Your task to perform on an android device: Open the stopwatch Image 0: 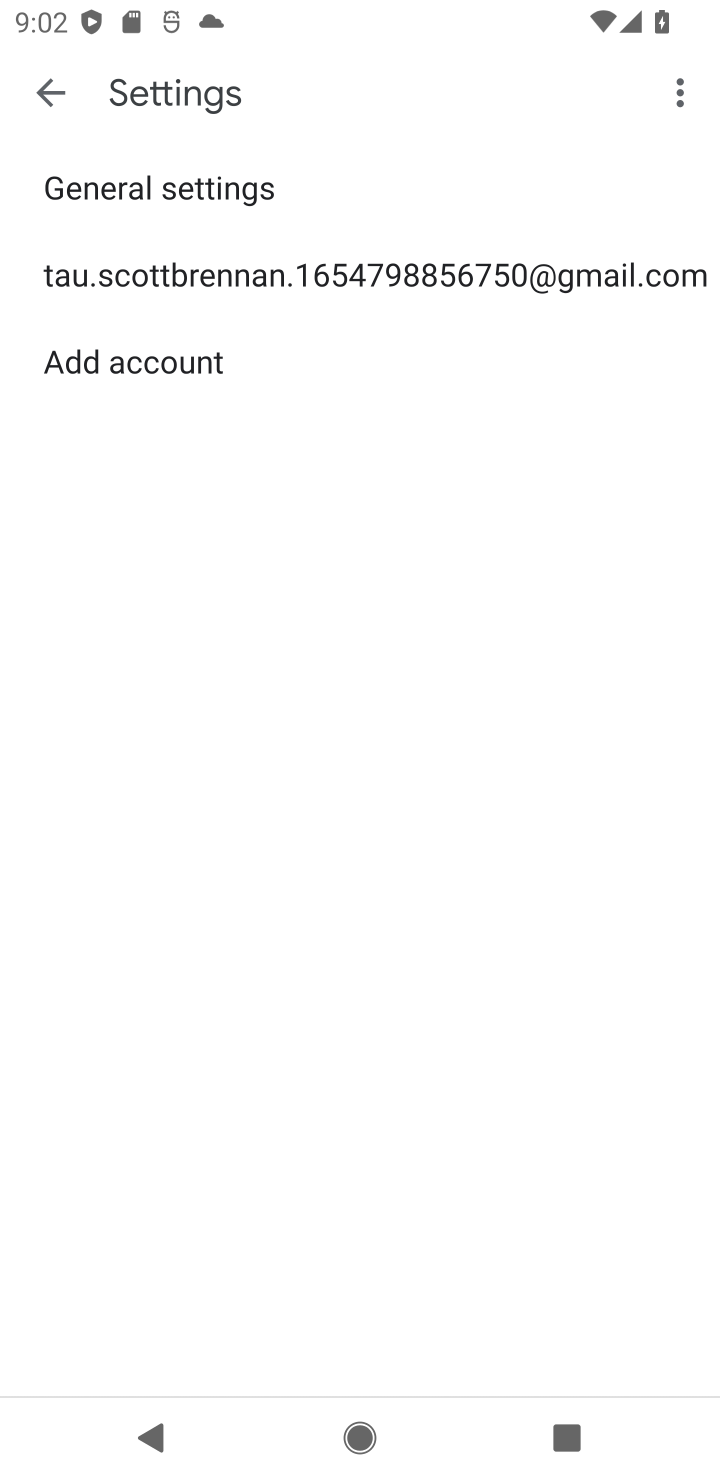
Step 0: press home button
Your task to perform on an android device: Open the stopwatch Image 1: 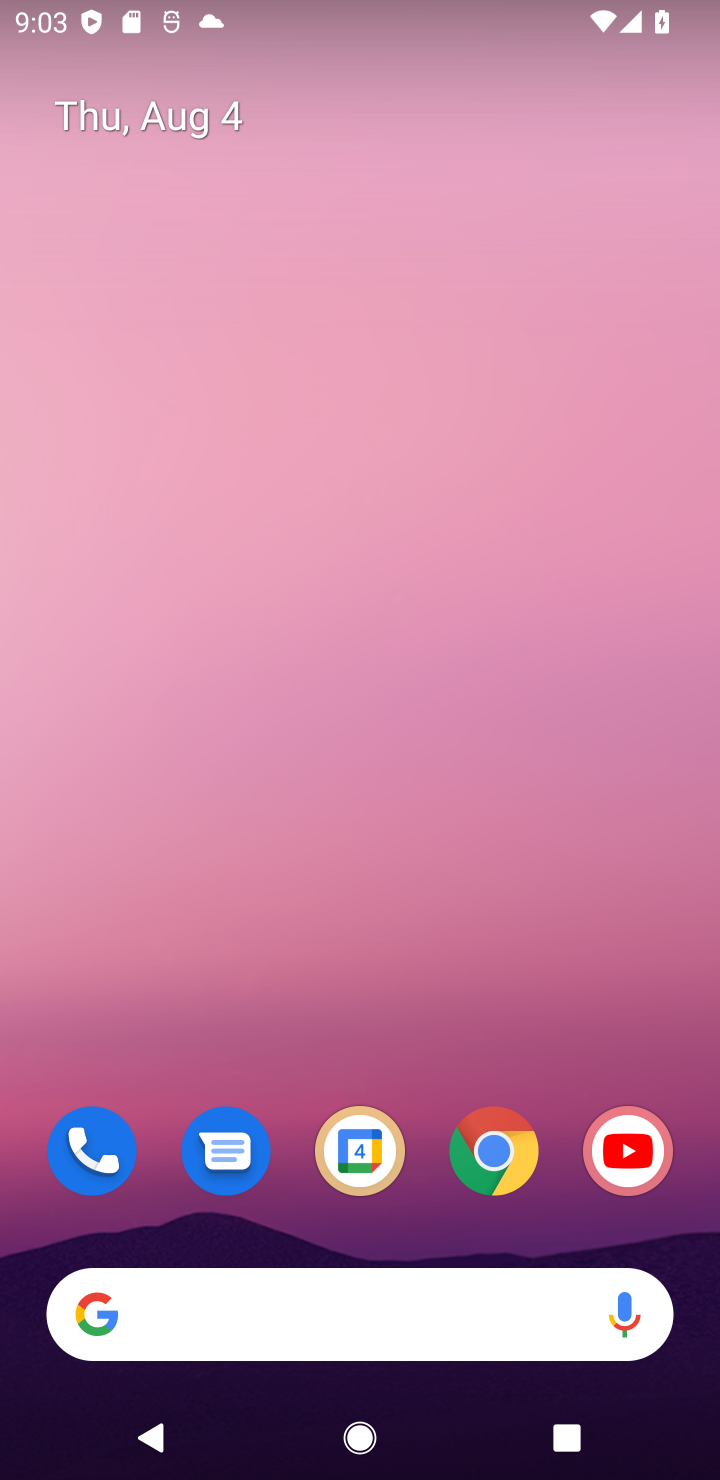
Step 1: drag from (560, 858) to (413, 124)
Your task to perform on an android device: Open the stopwatch Image 2: 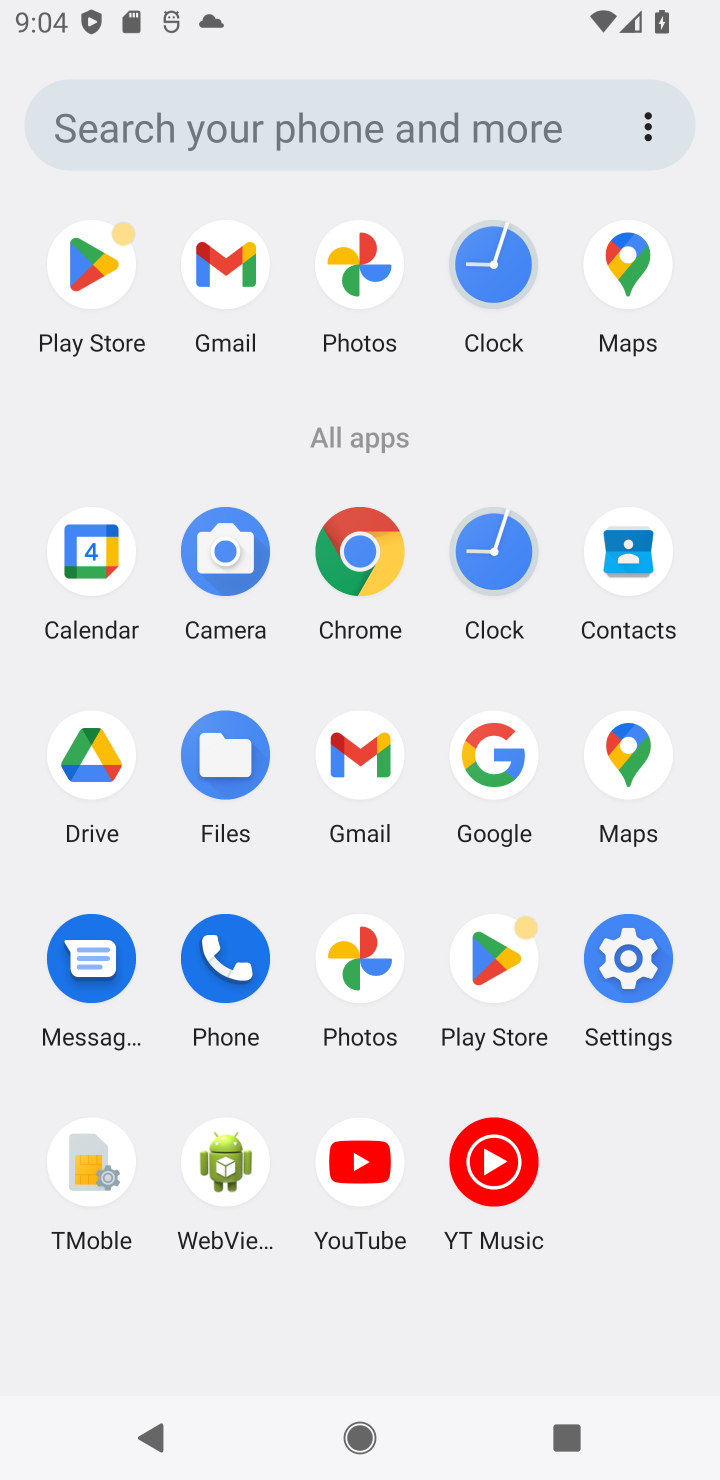
Step 2: click (493, 563)
Your task to perform on an android device: Open the stopwatch Image 3: 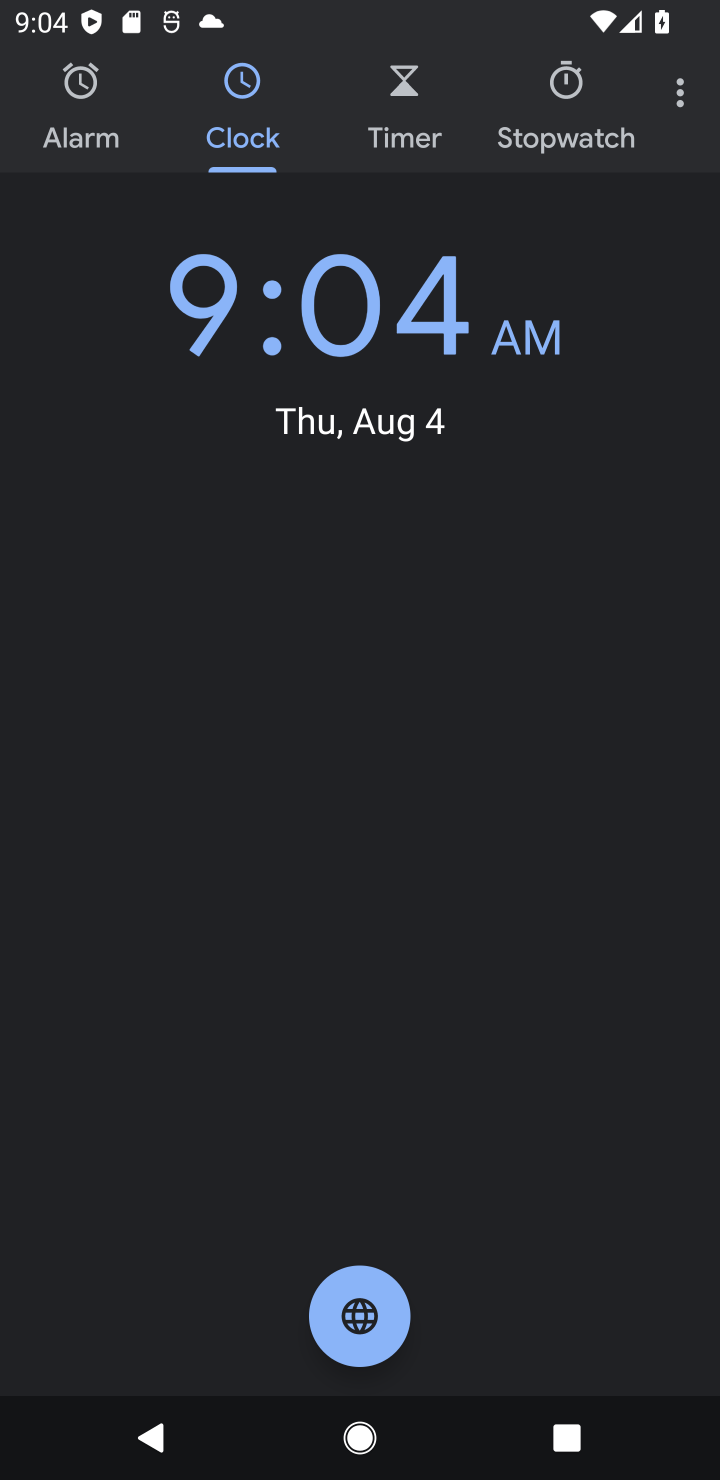
Step 3: click (592, 108)
Your task to perform on an android device: Open the stopwatch Image 4: 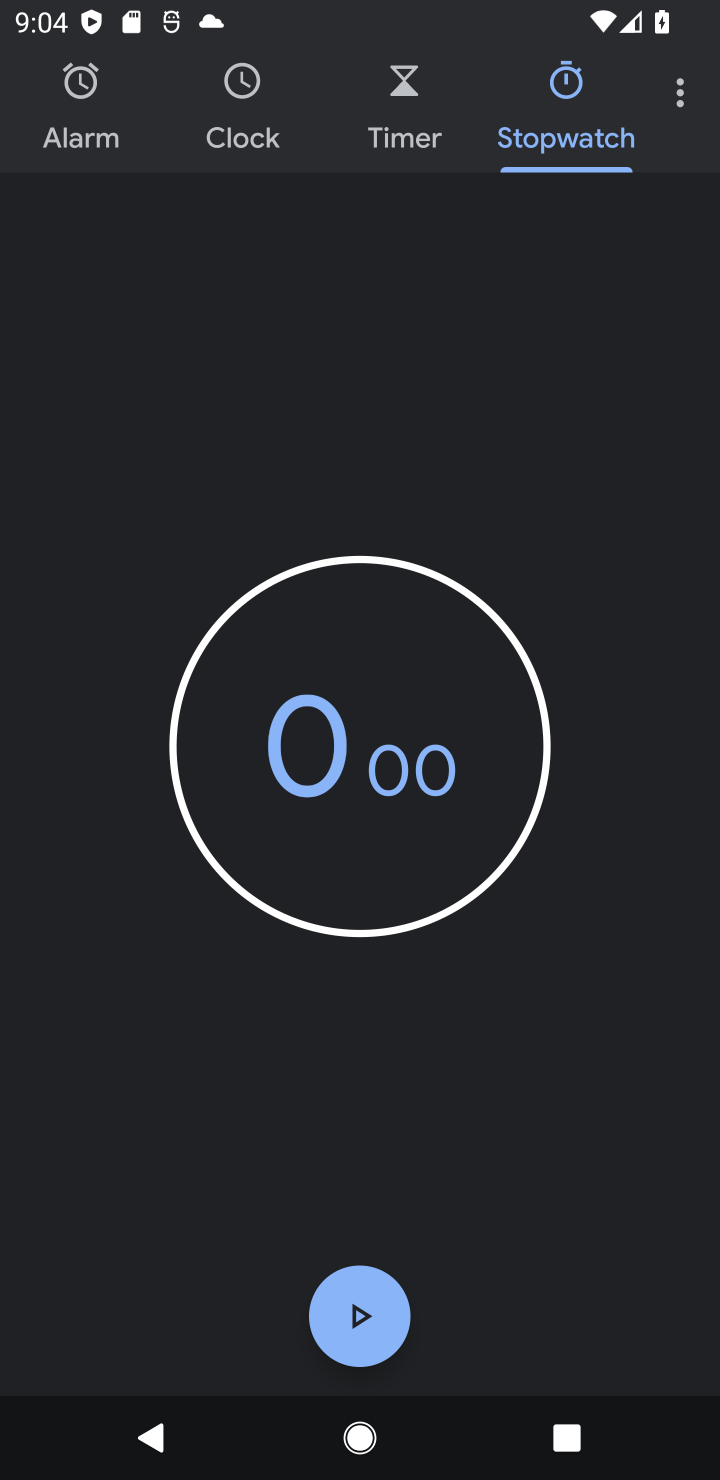
Step 4: task complete